Your task to perform on an android device: What is the news today? Image 0: 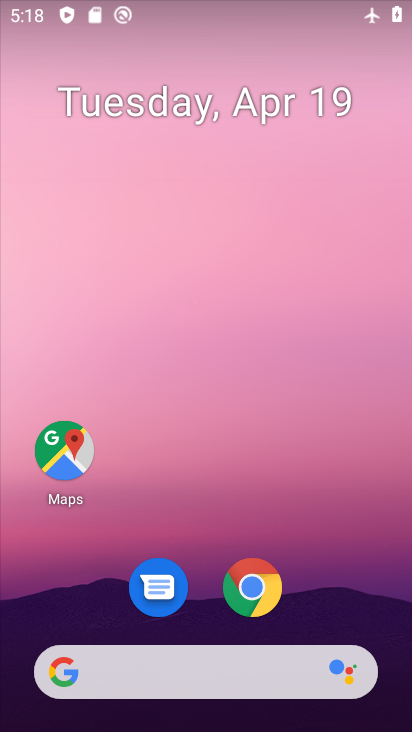
Step 0: click (193, 676)
Your task to perform on an android device: What is the news today? Image 1: 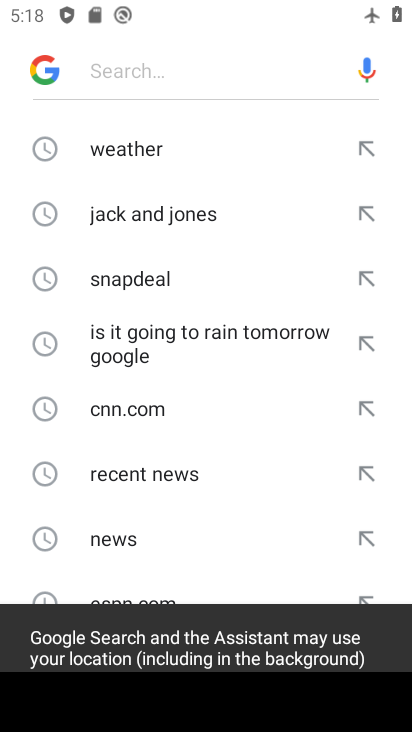
Step 1: click (40, 59)
Your task to perform on an android device: What is the news today? Image 2: 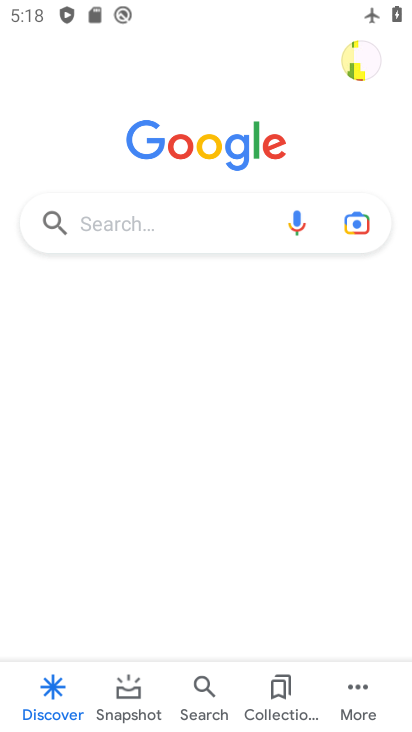
Step 2: drag from (126, 413) to (108, 61)
Your task to perform on an android device: What is the news today? Image 3: 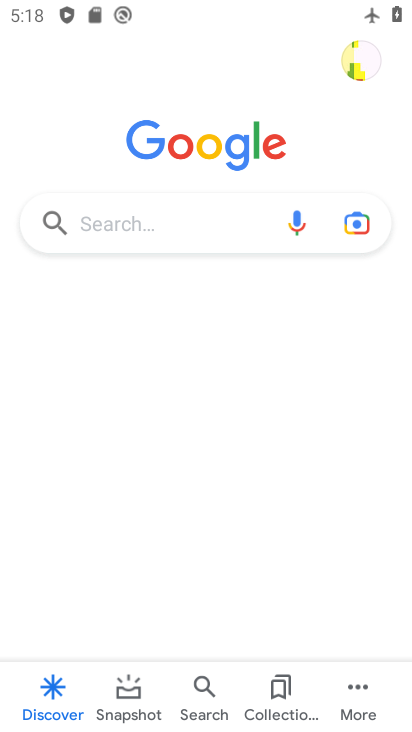
Step 3: click (147, 680)
Your task to perform on an android device: What is the news today? Image 4: 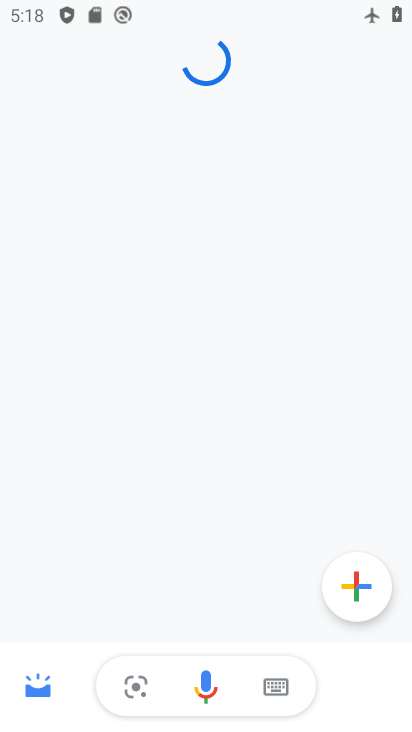
Step 4: drag from (302, 12) to (335, 618)
Your task to perform on an android device: What is the news today? Image 5: 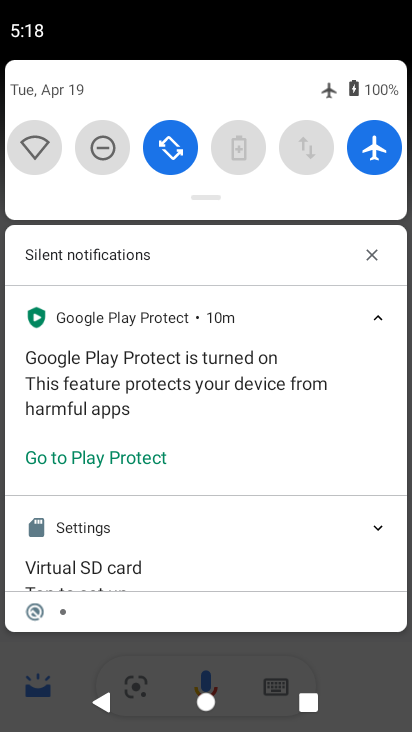
Step 5: drag from (218, 78) to (255, 404)
Your task to perform on an android device: What is the news today? Image 6: 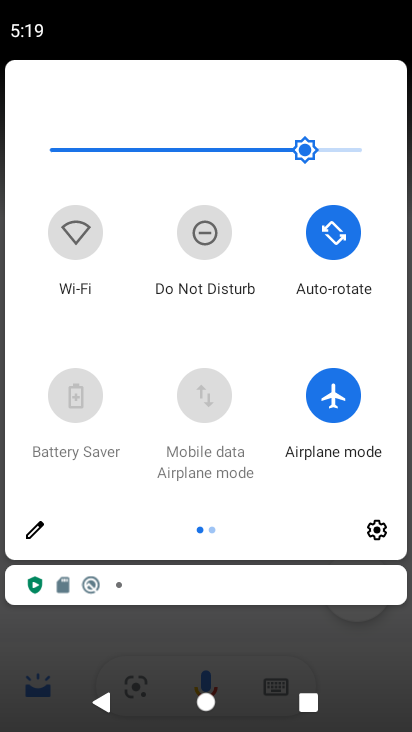
Step 6: click (338, 414)
Your task to perform on an android device: What is the news today? Image 7: 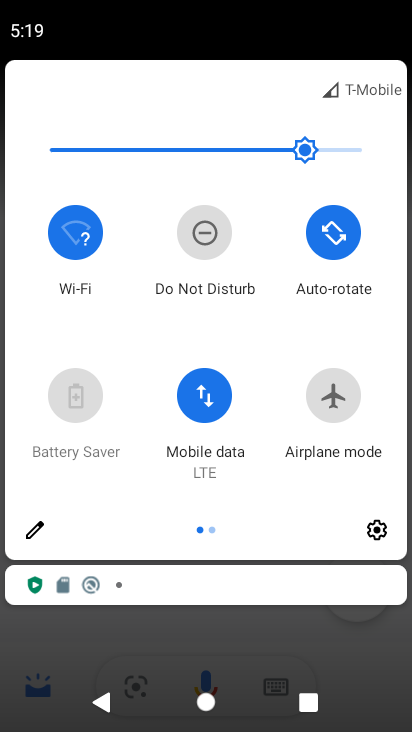
Step 7: task complete